Your task to perform on an android device: toggle wifi Image 0: 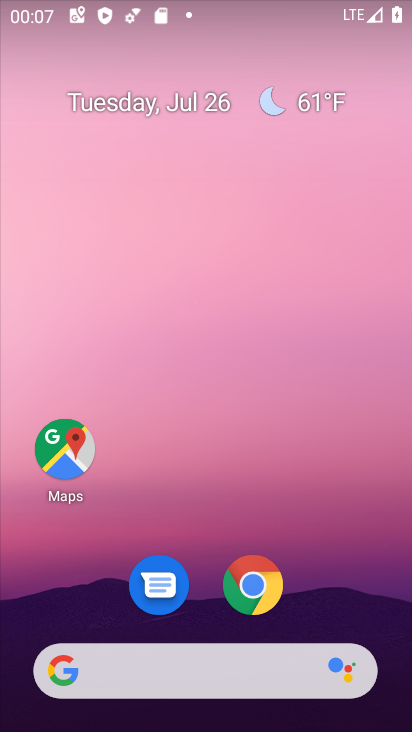
Step 0: drag from (202, 505) to (315, 41)
Your task to perform on an android device: toggle wifi Image 1: 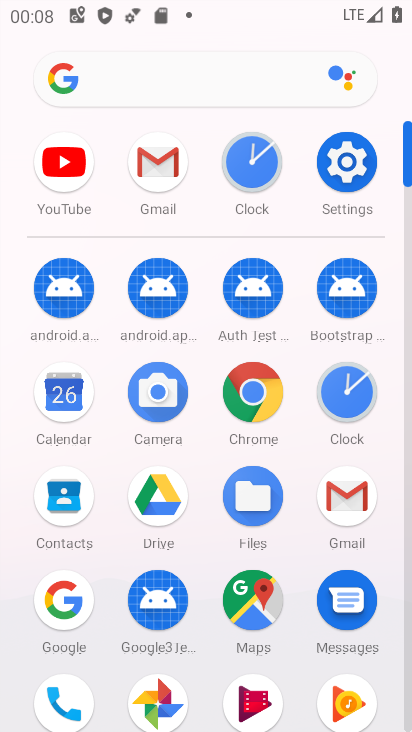
Step 1: click (340, 158)
Your task to perform on an android device: toggle wifi Image 2: 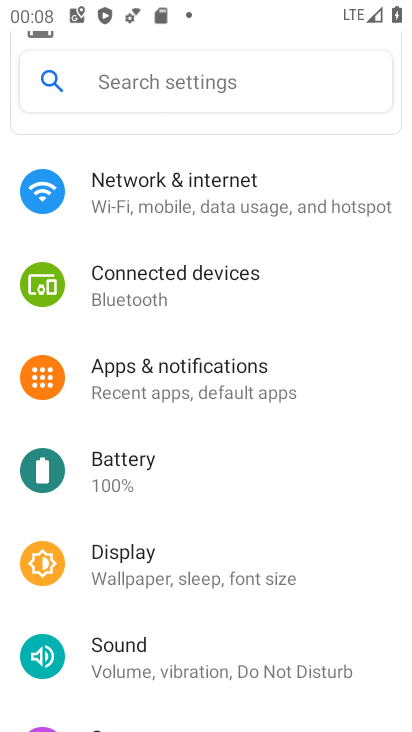
Step 2: click (210, 206)
Your task to perform on an android device: toggle wifi Image 3: 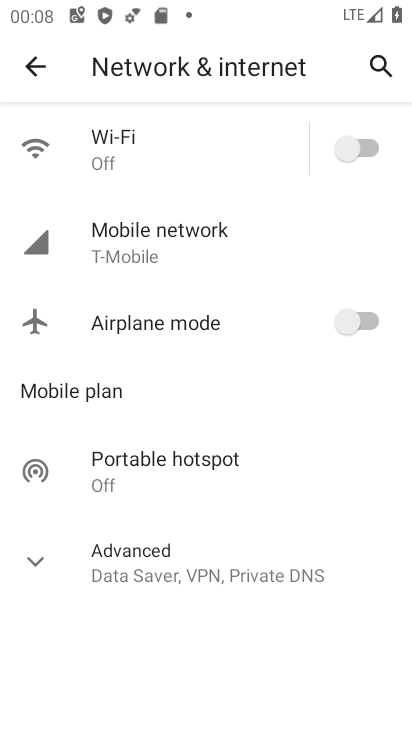
Step 3: click (366, 147)
Your task to perform on an android device: toggle wifi Image 4: 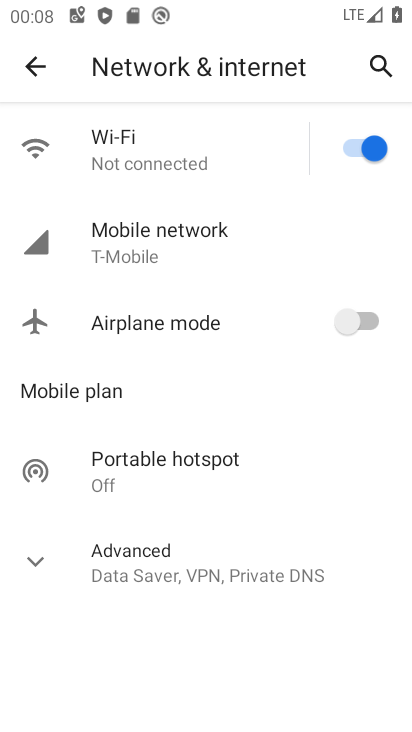
Step 4: task complete